Your task to perform on an android device: Open my contact list Image 0: 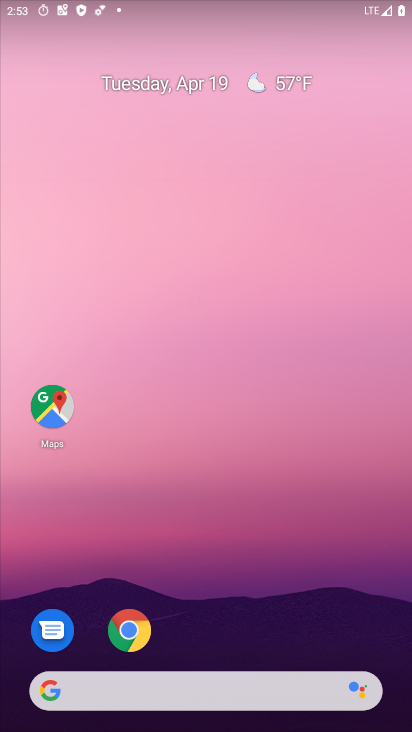
Step 0: drag from (223, 584) to (225, 131)
Your task to perform on an android device: Open my contact list Image 1: 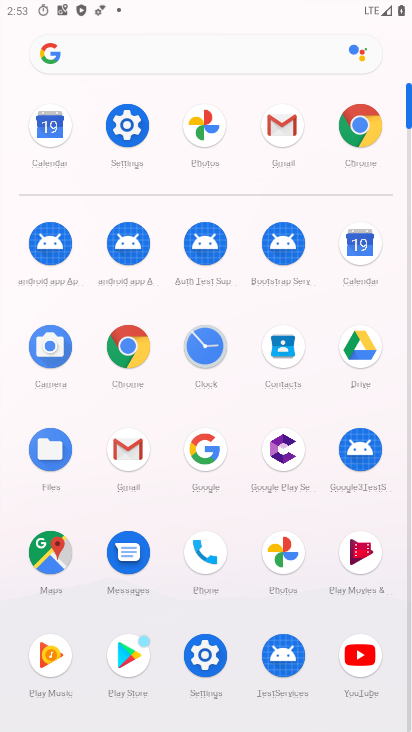
Step 1: click (280, 339)
Your task to perform on an android device: Open my contact list Image 2: 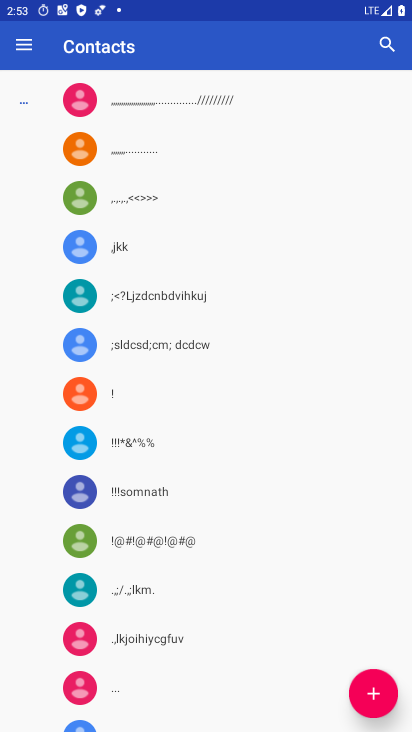
Step 2: task complete